Your task to perform on an android device: find which apps use the phone's location Image 0: 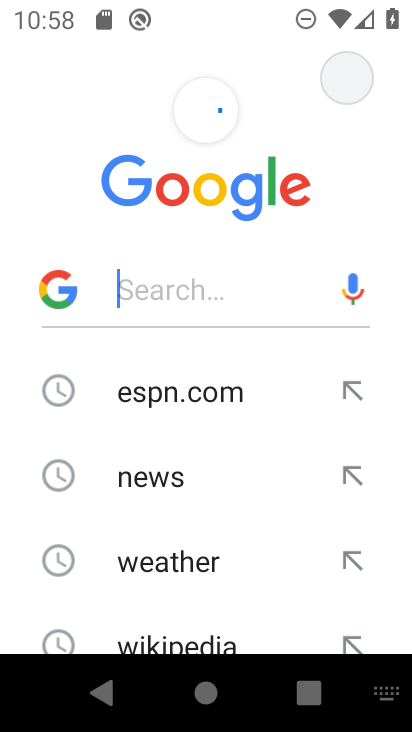
Step 0: press home button
Your task to perform on an android device: find which apps use the phone's location Image 1: 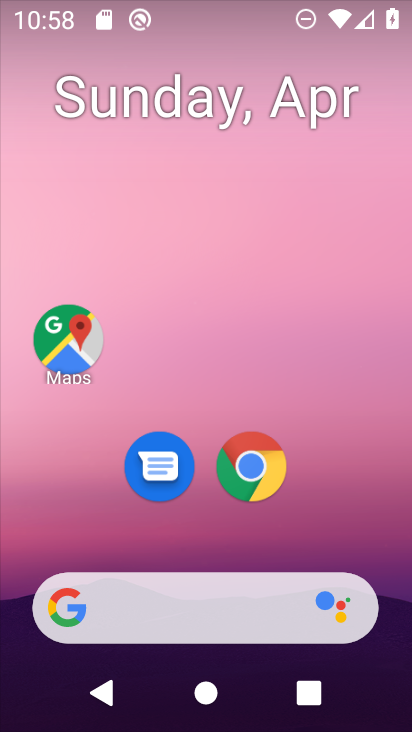
Step 1: drag from (360, 516) to (376, 113)
Your task to perform on an android device: find which apps use the phone's location Image 2: 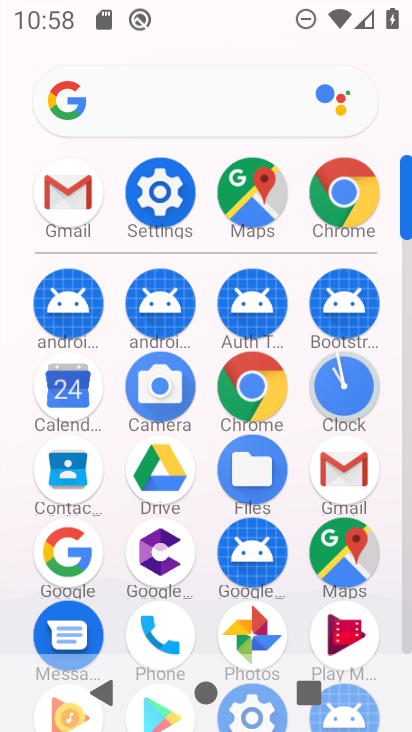
Step 2: click (164, 192)
Your task to perform on an android device: find which apps use the phone's location Image 3: 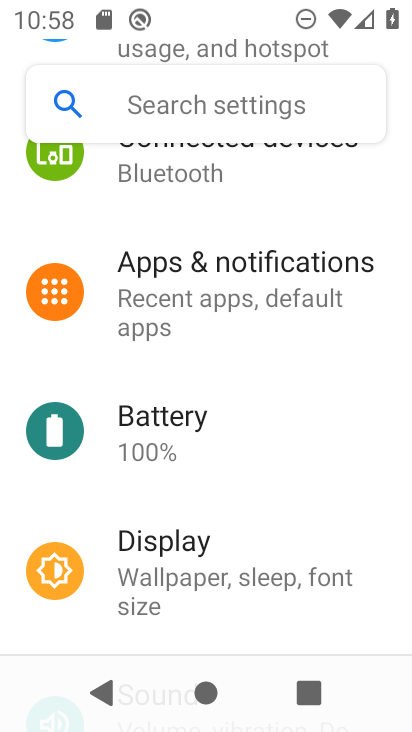
Step 3: drag from (368, 328) to (361, 482)
Your task to perform on an android device: find which apps use the phone's location Image 4: 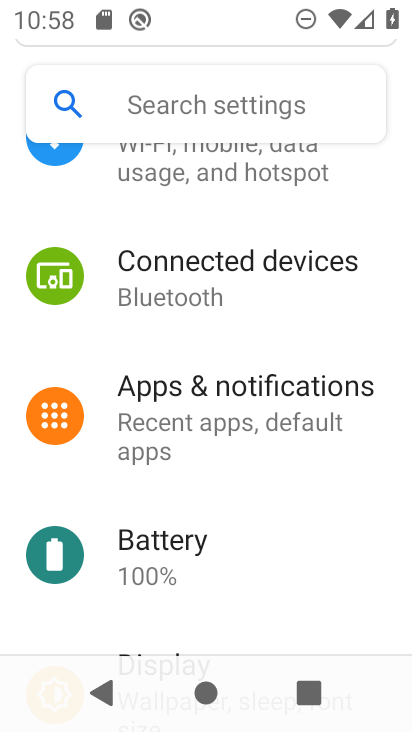
Step 4: drag from (391, 237) to (359, 511)
Your task to perform on an android device: find which apps use the phone's location Image 5: 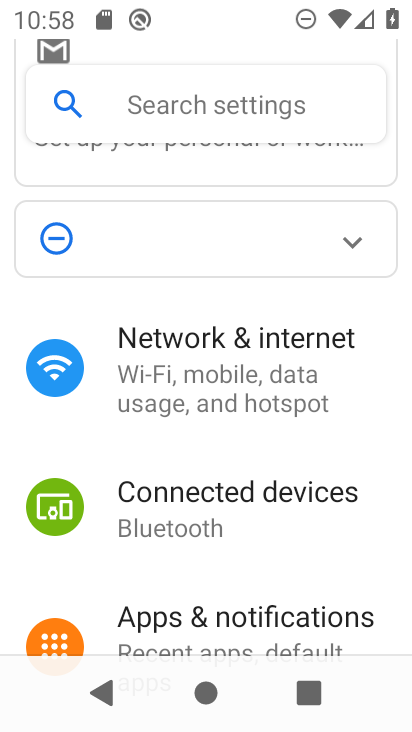
Step 5: drag from (341, 546) to (350, 337)
Your task to perform on an android device: find which apps use the phone's location Image 6: 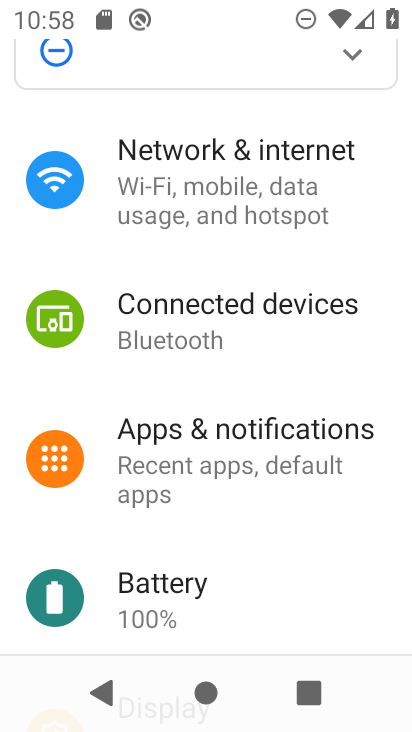
Step 6: drag from (333, 583) to (333, 464)
Your task to perform on an android device: find which apps use the phone's location Image 7: 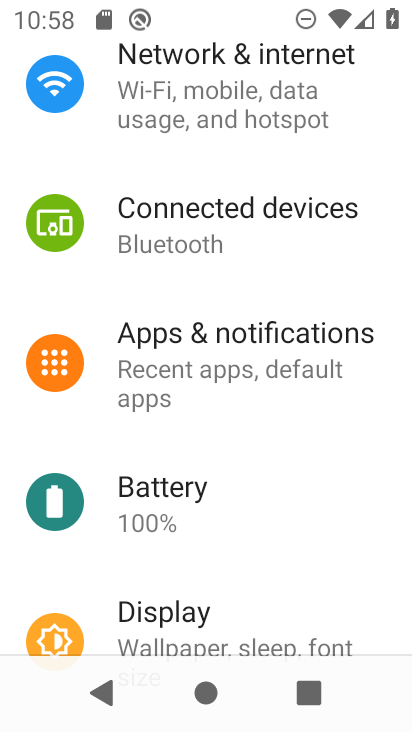
Step 7: drag from (326, 564) to (319, 411)
Your task to perform on an android device: find which apps use the phone's location Image 8: 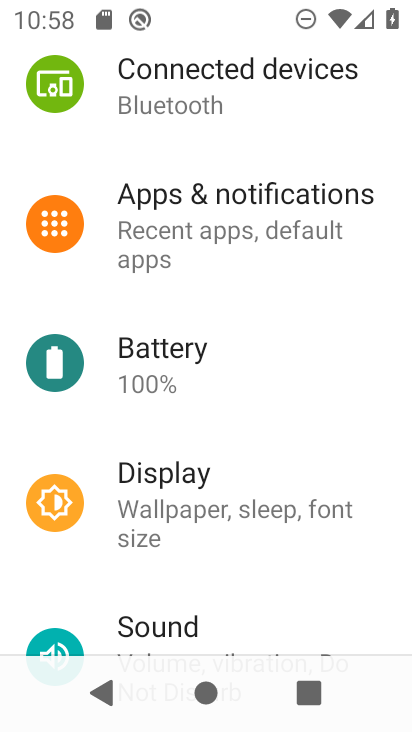
Step 8: drag from (312, 574) to (305, 332)
Your task to perform on an android device: find which apps use the phone's location Image 9: 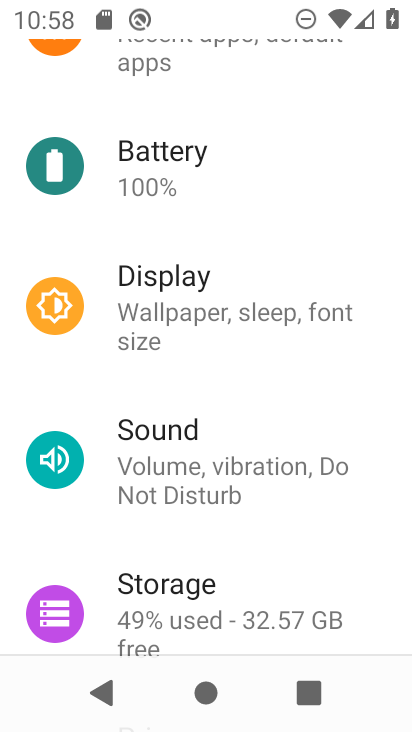
Step 9: drag from (304, 564) to (286, 296)
Your task to perform on an android device: find which apps use the phone's location Image 10: 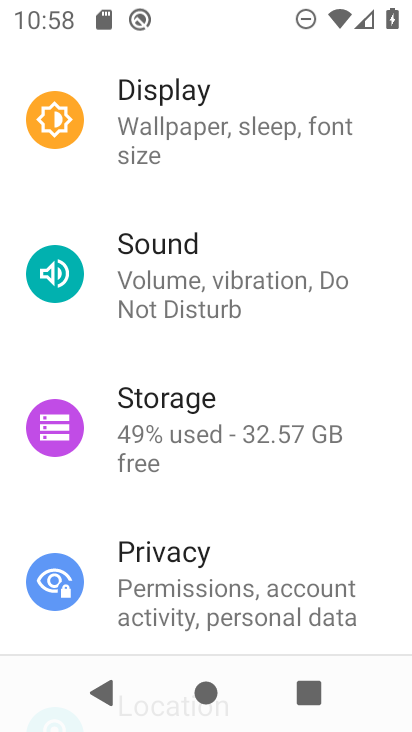
Step 10: drag from (286, 497) to (292, 280)
Your task to perform on an android device: find which apps use the phone's location Image 11: 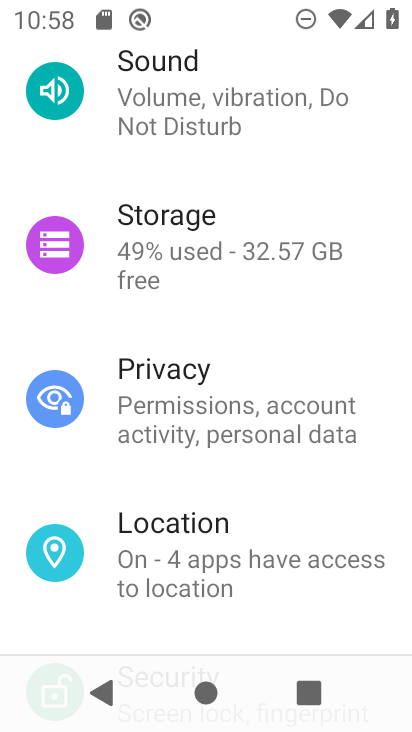
Step 11: drag from (304, 488) to (291, 306)
Your task to perform on an android device: find which apps use the phone's location Image 12: 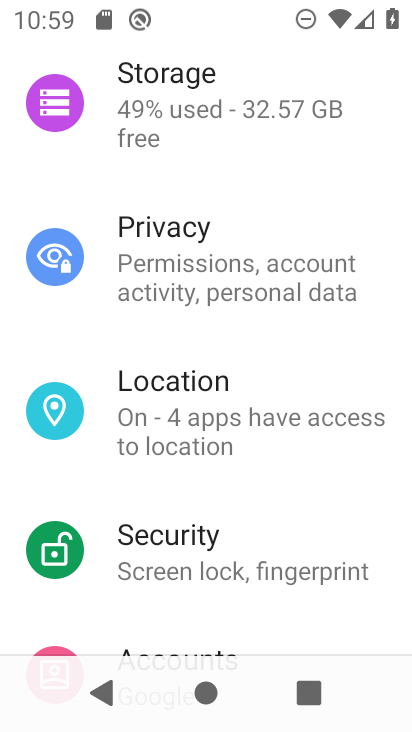
Step 12: click (212, 416)
Your task to perform on an android device: find which apps use the phone's location Image 13: 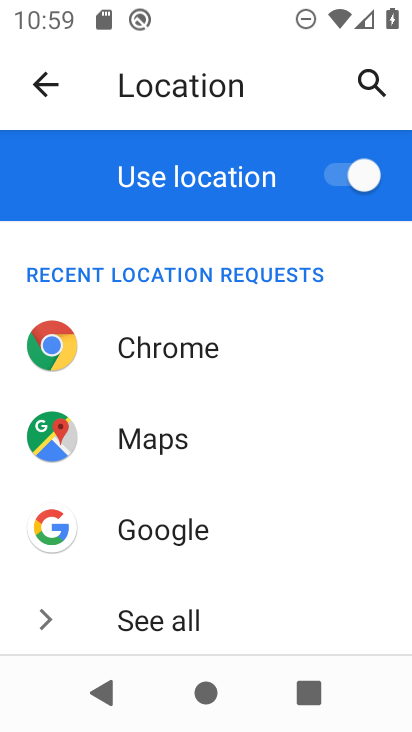
Step 13: drag from (285, 585) to (286, 353)
Your task to perform on an android device: find which apps use the phone's location Image 14: 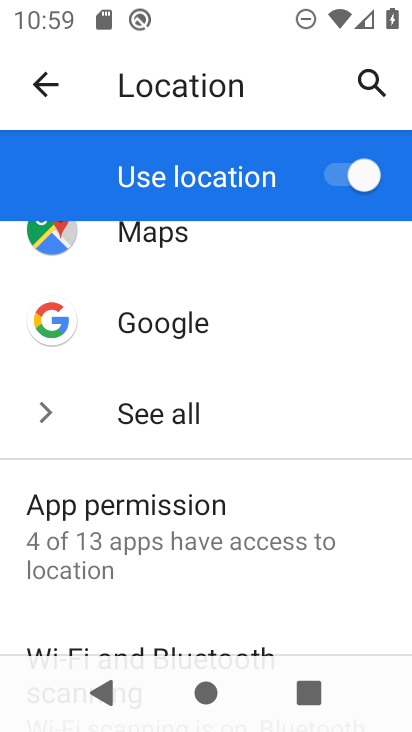
Step 14: drag from (305, 576) to (312, 354)
Your task to perform on an android device: find which apps use the phone's location Image 15: 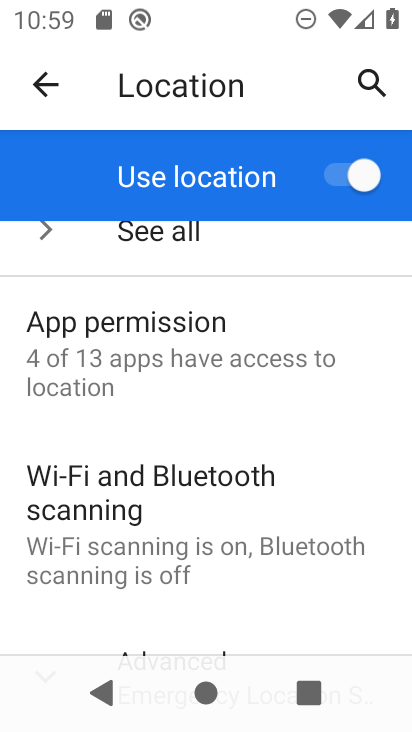
Step 15: click (152, 337)
Your task to perform on an android device: find which apps use the phone's location Image 16: 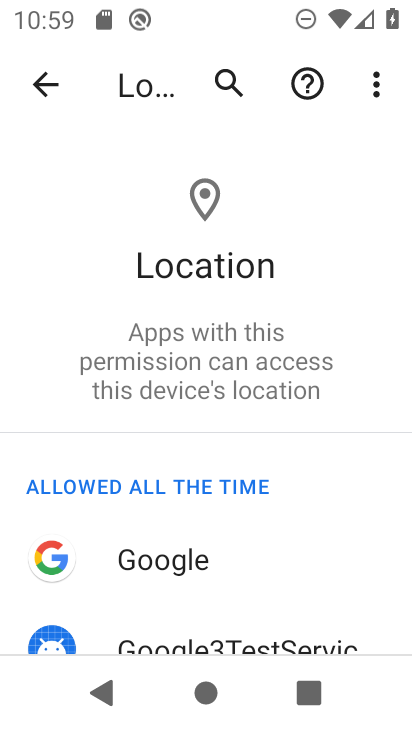
Step 16: drag from (306, 551) to (340, 281)
Your task to perform on an android device: find which apps use the phone's location Image 17: 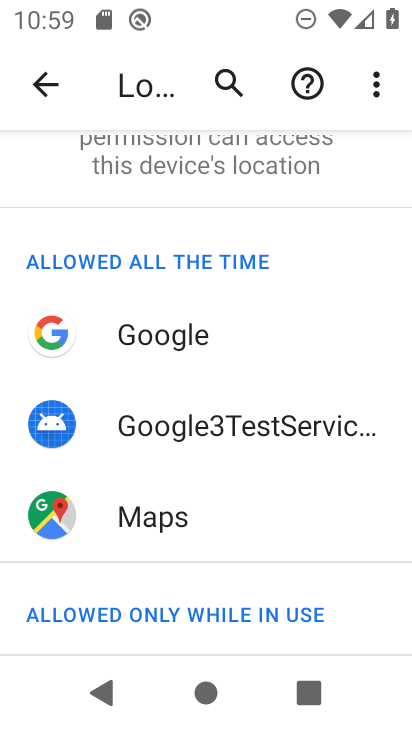
Step 17: drag from (332, 533) to (332, 312)
Your task to perform on an android device: find which apps use the phone's location Image 18: 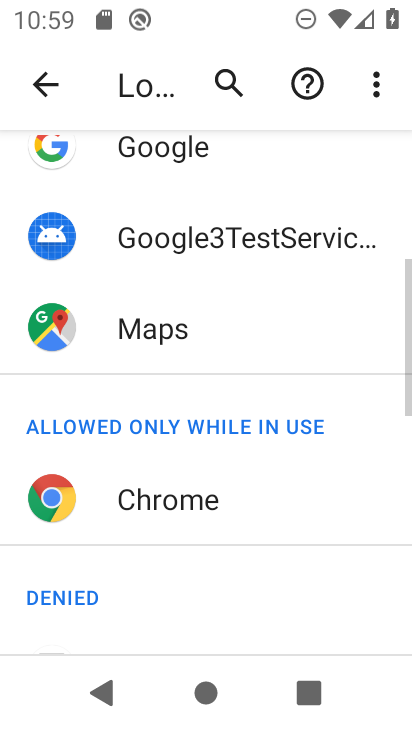
Step 18: drag from (330, 593) to (335, 296)
Your task to perform on an android device: find which apps use the phone's location Image 19: 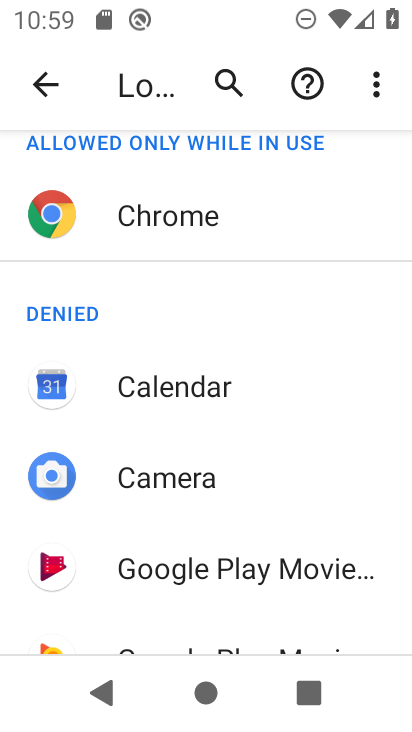
Step 19: drag from (328, 597) to (340, 262)
Your task to perform on an android device: find which apps use the phone's location Image 20: 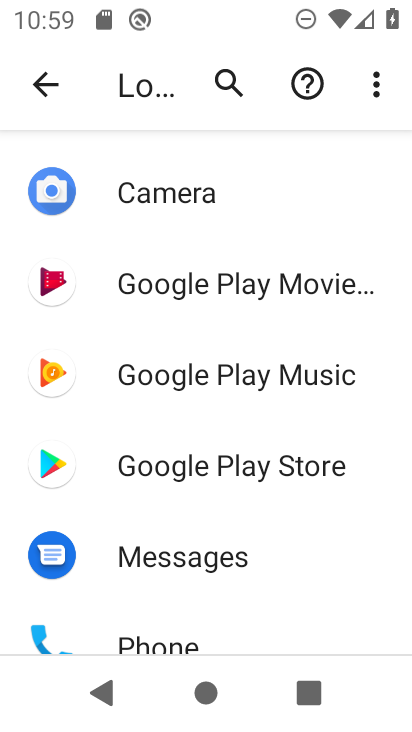
Step 20: drag from (346, 593) to (349, 282)
Your task to perform on an android device: find which apps use the phone's location Image 21: 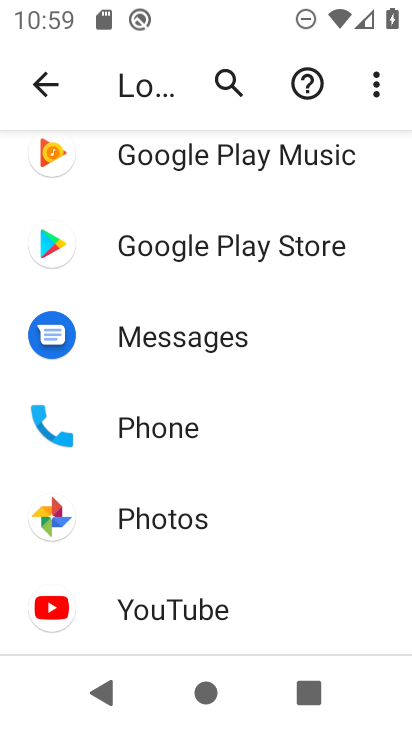
Step 21: click (168, 522)
Your task to perform on an android device: find which apps use the phone's location Image 22: 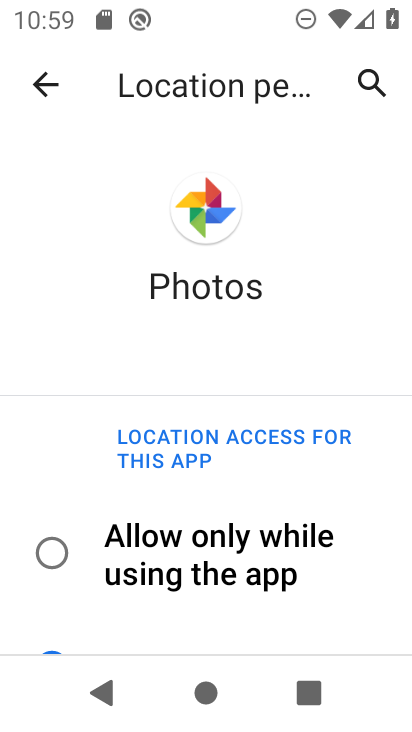
Step 22: click (42, 550)
Your task to perform on an android device: find which apps use the phone's location Image 23: 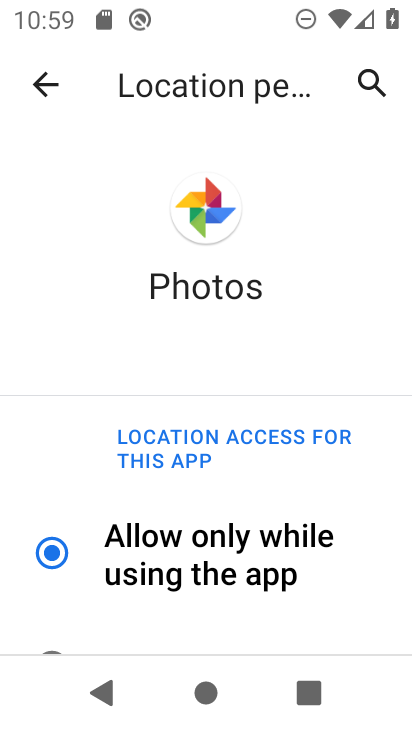
Step 23: task complete